Your task to perform on an android device: Open Google Image 0: 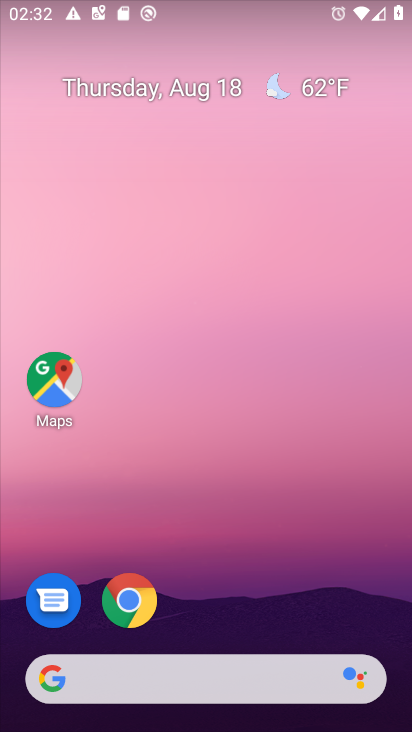
Step 0: press home button
Your task to perform on an android device: Open Google Image 1: 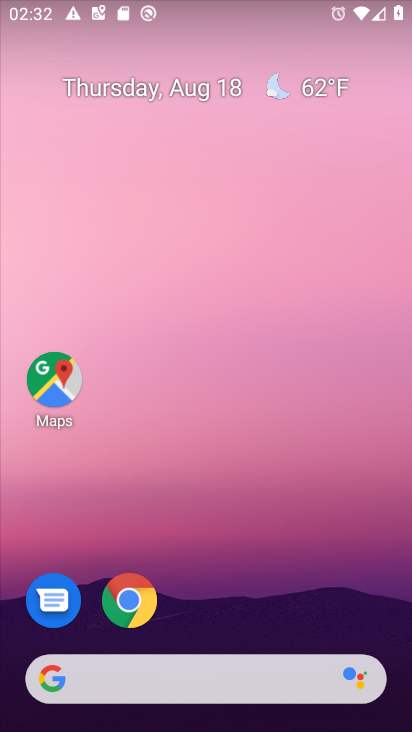
Step 1: drag from (309, 606) to (277, 117)
Your task to perform on an android device: Open Google Image 2: 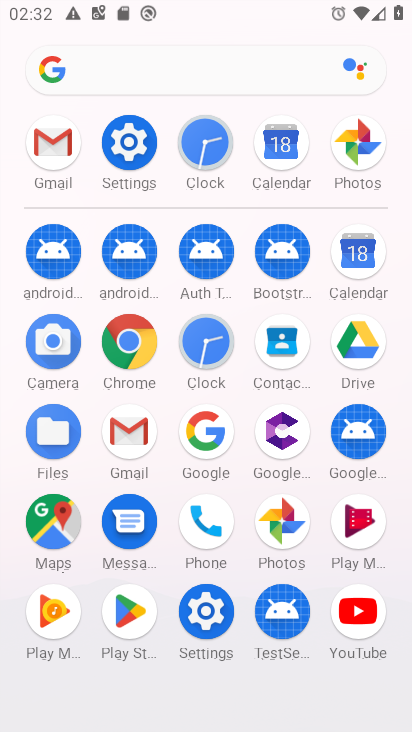
Step 2: click (220, 439)
Your task to perform on an android device: Open Google Image 3: 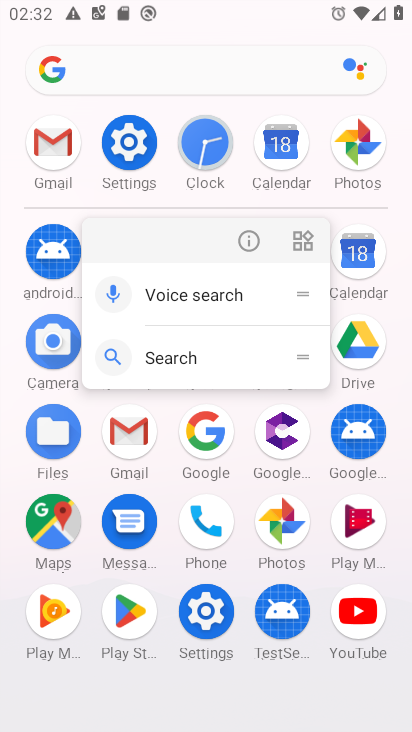
Step 3: click (219, 433)
Your task to perform on an android device: Open Google Image 4: 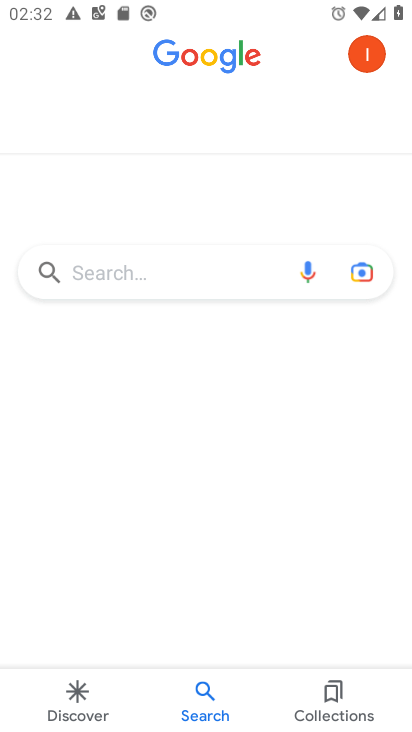
Step 4: click (180, 50)
Your task to perform on an android device: Open Google Image 5: 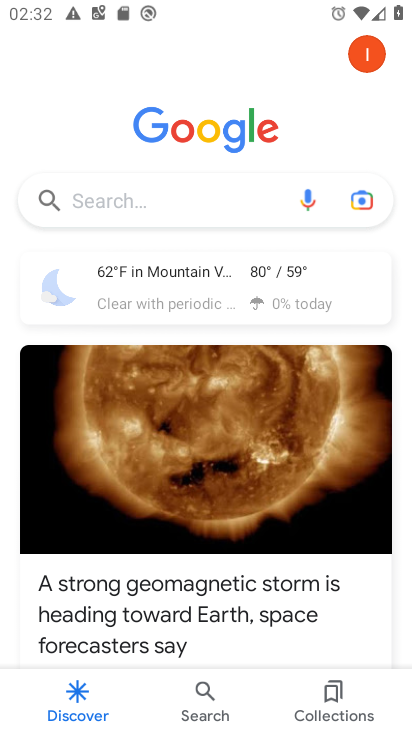
Step 5: task complete